Your task to perform on an android device: find which apps use the phone's location Image 0: 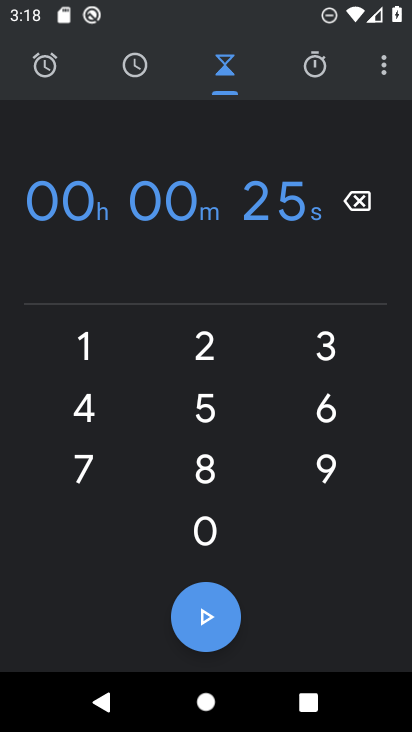
Step 0: press back button
Your task to perform on an android device: find which apps use the phone's location Image 1: 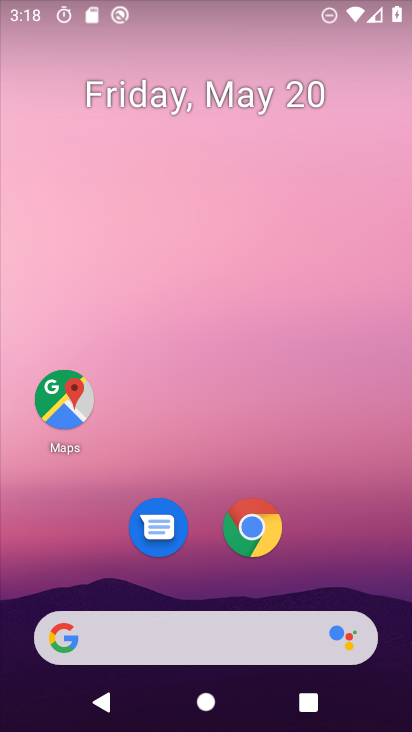
Step 1: drag from (183, 522) to (185, 82)
Your task to perform on an android device: find which apps use the phone's location Image 2: 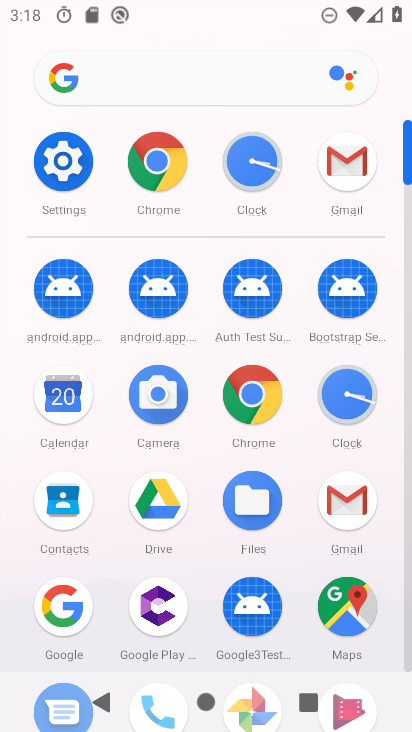
Step 2: click (50, 157)
Your task to perform on an android device: find which apps use the phone's location Image 3: 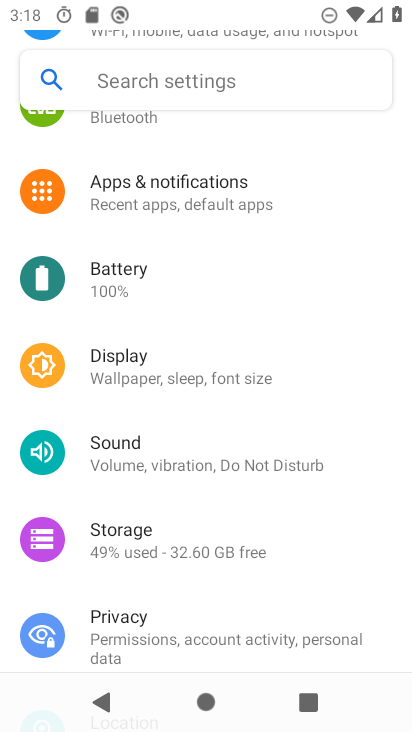
Step 3: drag from (133, 577) to (237, 73)
Your task to perform on an android device: find which apps use the phone's location Image 4: 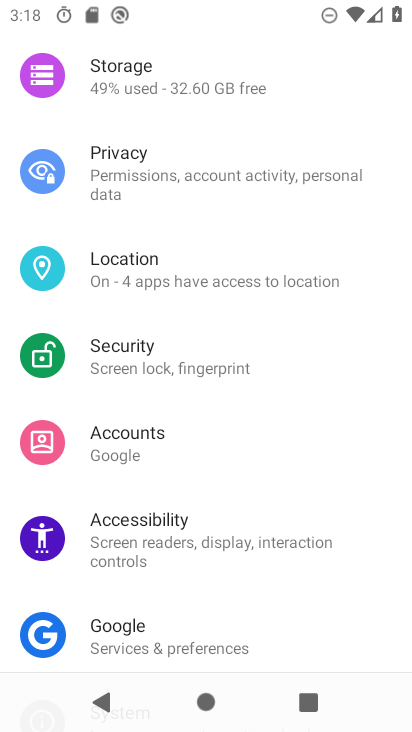
Step 4: click (131, 263)
Your task to perform on an android device: find which apps use the phone's location Image 5: 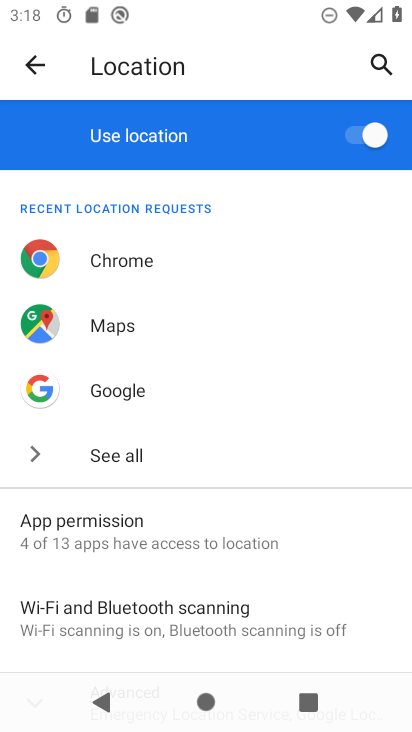
Step 5: click (96, 525)
Your task to perform on an android device: find which apps use the phone's location Image 6: 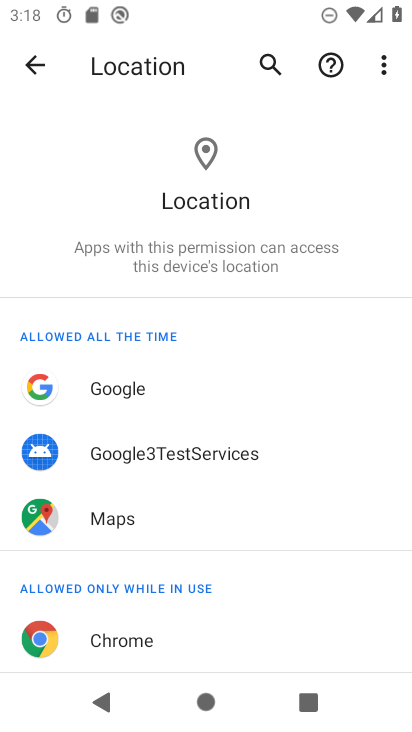
Step 6: task complete